Your task to perform on an android device: Clear the shopping cart on newegg.com. Search for macbook pro 13 inch on newegg.com, select the first entry, and add it to the cart. Image 0: 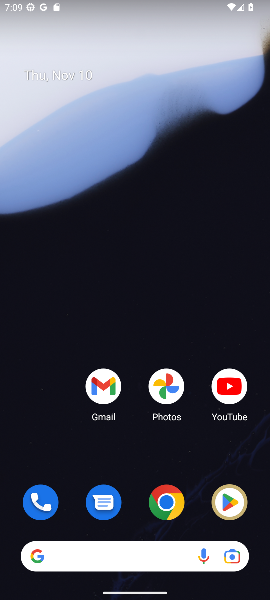
Step 0: drag from (126, 482) to (151, 97)
Your task to perform on an android device: Clear the shopping cart on newegg.com. Search for macbook pro 13 inch on newegg.com, select the first entry, and add it to the cart. Image 1: 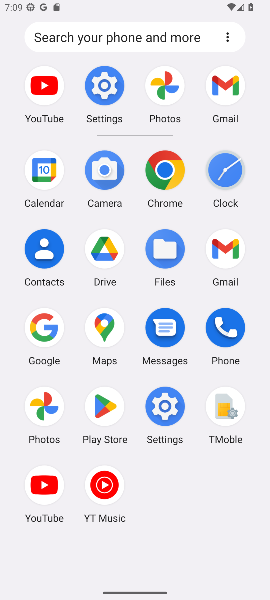
Step 1: click (39, 336)
Your task to perform on an android device: Clear the shopping cart on newegg.com. Search for macbook pro 13 inch on newegg.com, select the first entry, and add it to the cart. Image 2: 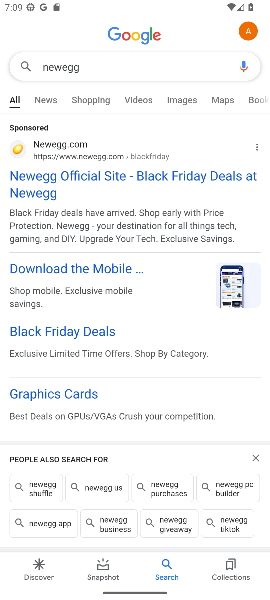
Step 2: click (50, 148)
Your task to perform on an android device: Clear the shopping cart on newegg.com. Search for macbook pro 13 inch on newegg.com, select the first entry, and add it to the cart. Image 3: 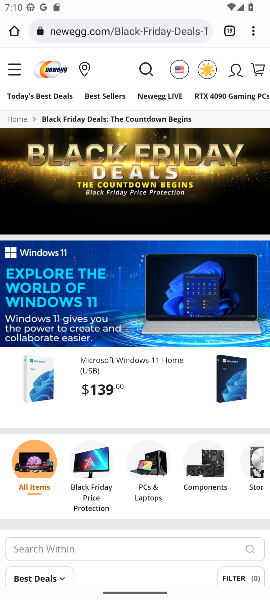
Step 3: click (142, 65)
Your task to perform on an android device: Clear the shopping cart on newegg.com. Search for macbook pro 13 inch on newegg.com, select the first entry, and add it to the cart. Image 4: 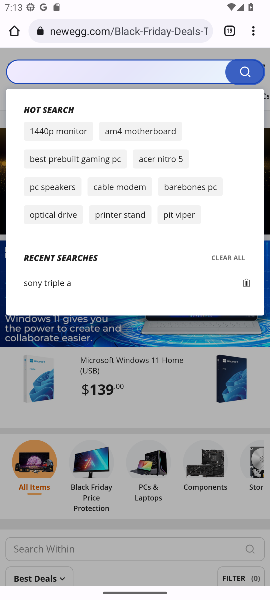
Step 4: click (131, 75)
Your task to perform on an android device: Clear the shopping cart on newegg.com. Search for macbook pro 13 inch on newegg.com, select the first entry, and add it to the cart. Image 5: 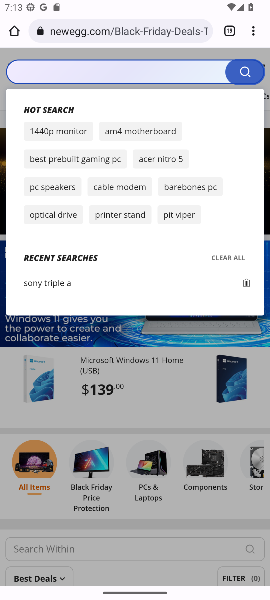
Step 5: click (131, 75)
Your task to perform on an android device: Clear the shopping cart on newegg.com. Search for macbook pro 13 inch on newegg.com, select the first entry, and add it to the cart. Image 6: 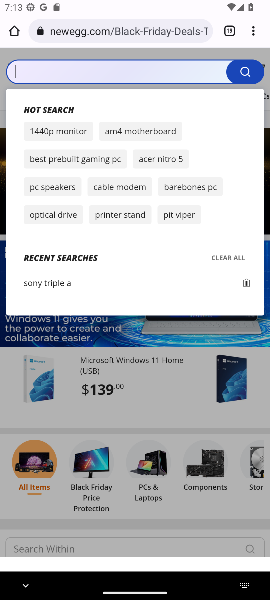
Step 6: type "macbook pro 13"
Your task to perform on an android device: Clear the shopping cart on newegg.com. Search for macbook pro 13 inch on newegg.com, select the first entry, and add it to the cart. Image 7: 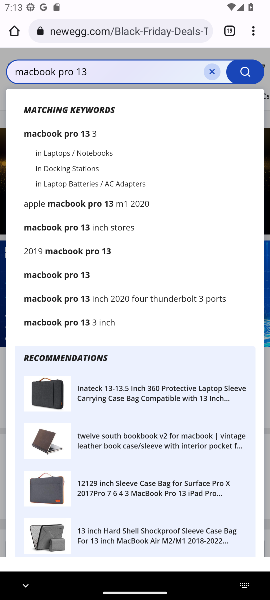
Step 7: click (69, 134)
Your task to perform on an android device: Clear the shopping cart on newegg.com. Search for macbook pro 13 inch on newegg.com, select the first entry, and add it to the cart. Image 8: 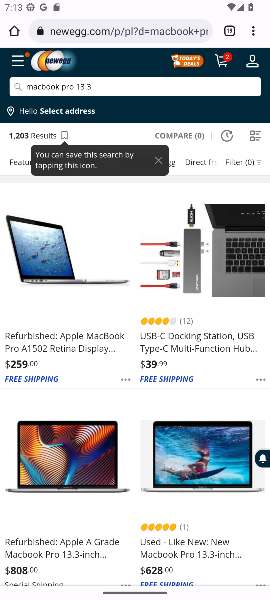
Step 8: click (53, 274)
Your task to perform on an android device: Clear the shopping cart on newegg.com. Search for macbook pro 13 inch on newegg.com, select the first entry, and add it to the cart. Image 9: 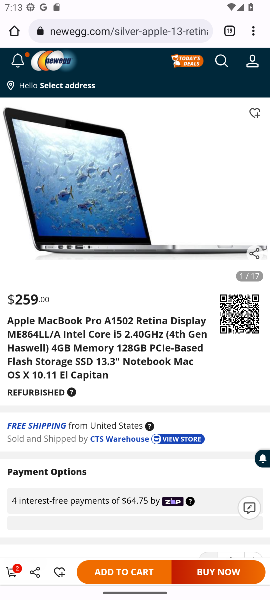
Step 9: click (113, 570)
Your task to perform on an android device: Clear the shopping cart on newegg.com. Search for macbook pro 13 inch on newegg.com, select the first entry, and add it to the cart. Image 10: 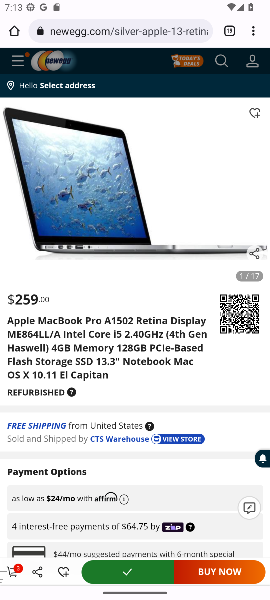
Step 10: task complete